Your task to perform on an android device: Open sound settings Image 0: 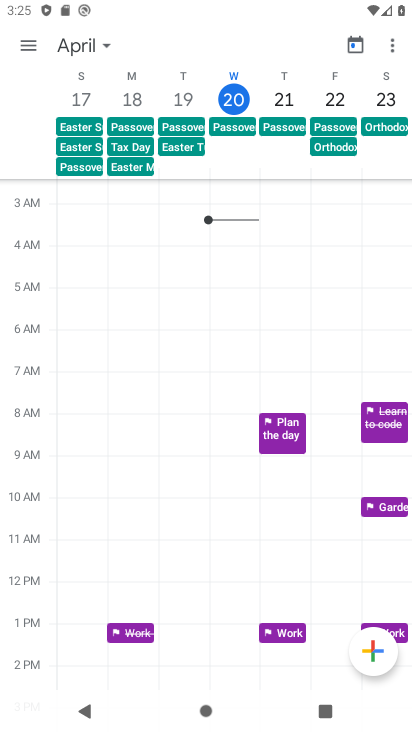
Step 0: press home button
Your task to perform on an android device: Open sound settings Image 1: 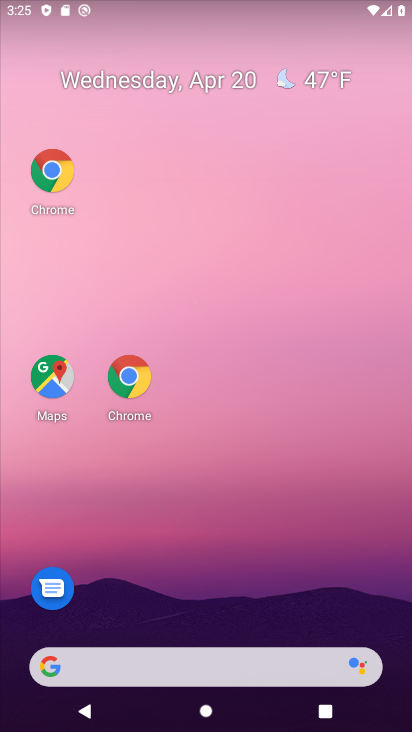
Step 1: drag from (310, 579) to (310, 45)
Your task to perform on an android device: Open sound settings Image 2: 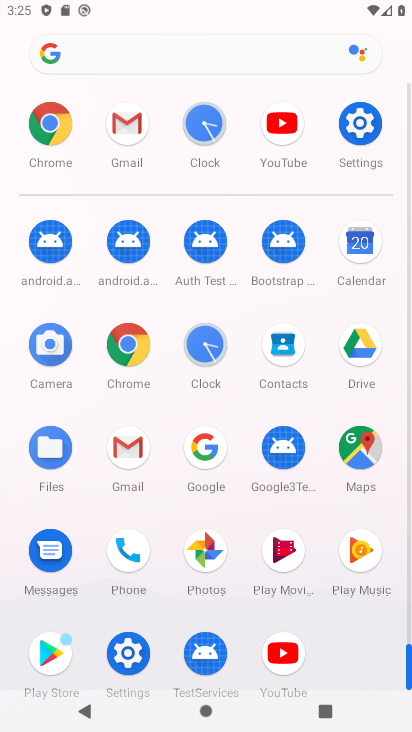
Step 2: click (129, 645)
Your task to perform on an android device: Open sound settings Image 3: 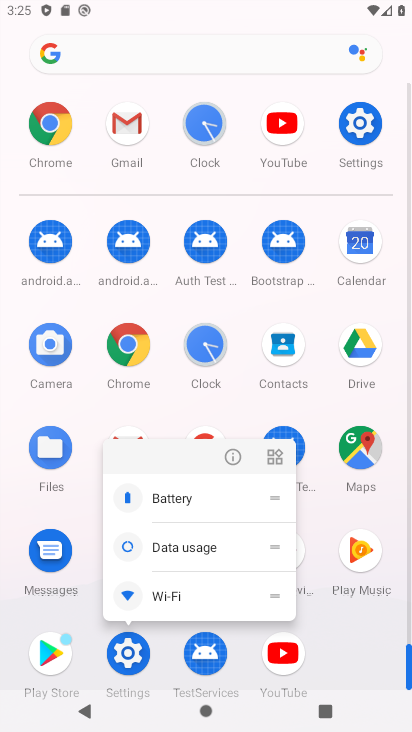
Step 3: click (129, 645)
Your task to perform on an android device: Open sound settings Image 4: 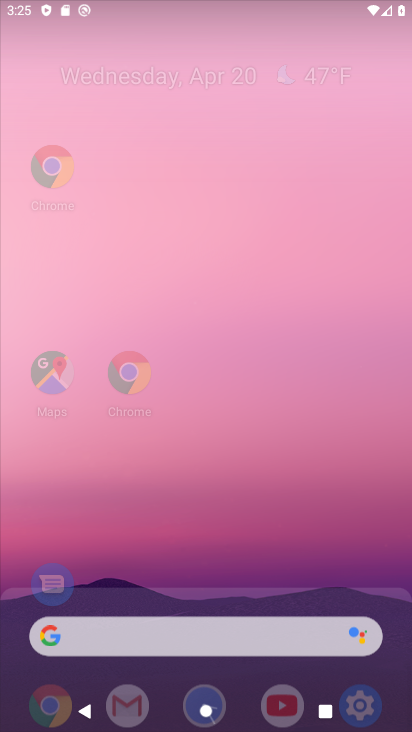
Step 4: click (138, 656)
Your task to perform on an android device: Open sound settings Image 5: 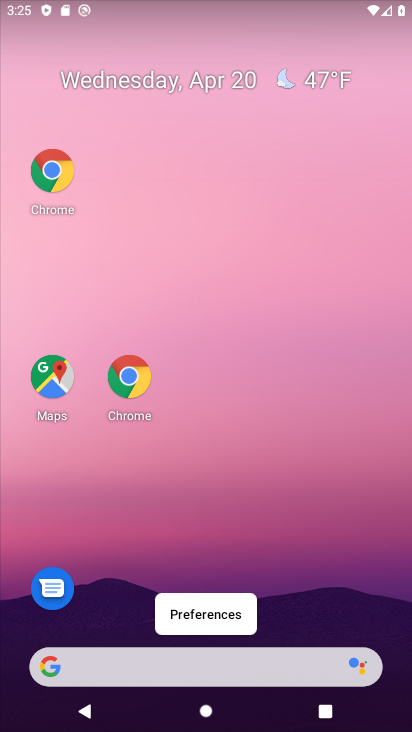
Step 5: drag from (272, 643) to (279, 74)
Your task to perform on an android device: Open sound settings Image 6: 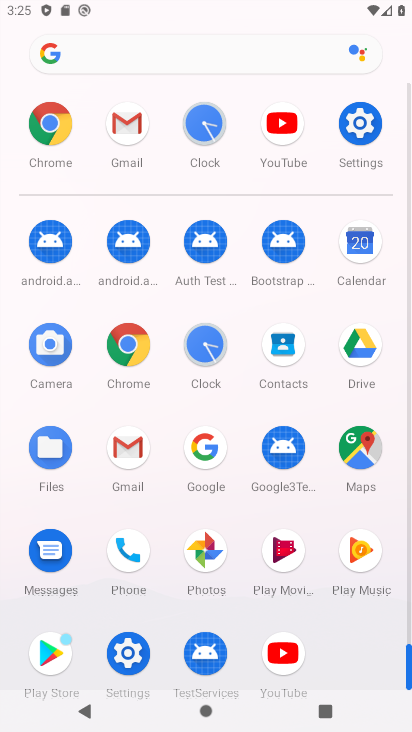
Step 6: drag from (225, 663) to (257, 314)
Your task to perform on an android device: Open sound settings Image 7: 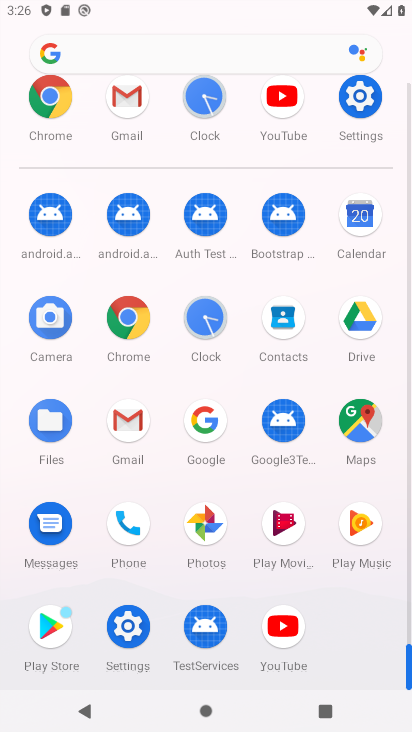
Step 7: click (143, 633)
Your task to perform on an android device: Open sound settings Image 8: 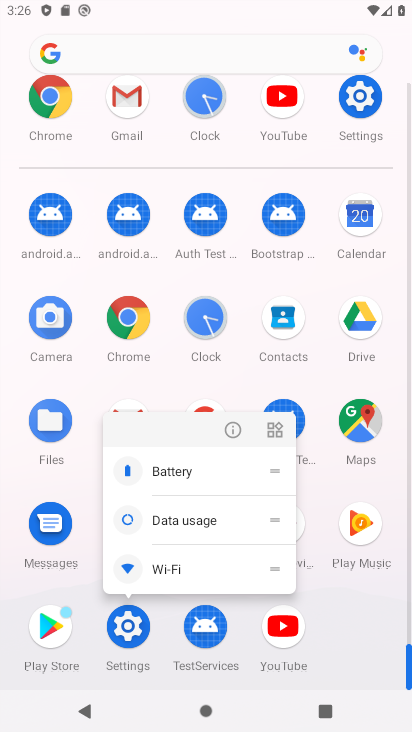
Step 8: click (143, 633)
Your task to perform on an android device: Open sound settings Image 9: 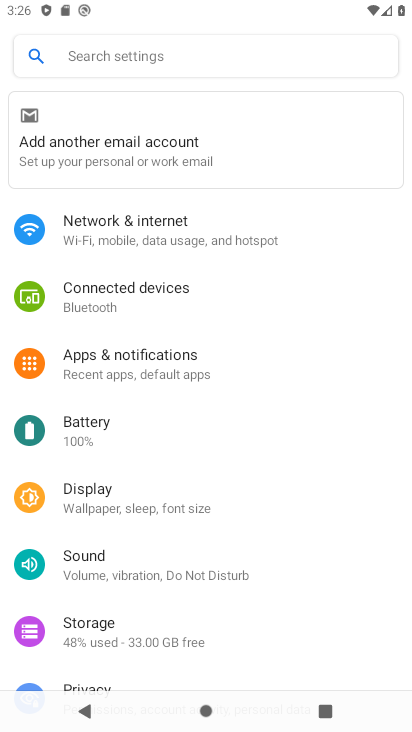
Step 9: click (162, 572)
Your task to perform on an android device: Open sound settings Image 10: 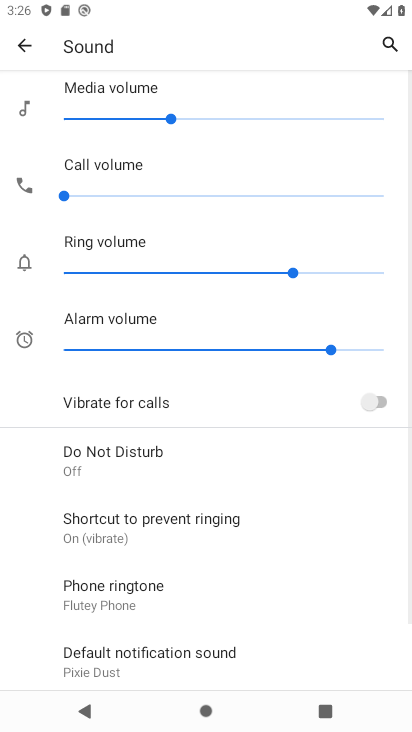
Step 10: task complete